Your task to perform on an android device: Open the calendar app, open the side menu, and click the "Day" option Image 0: 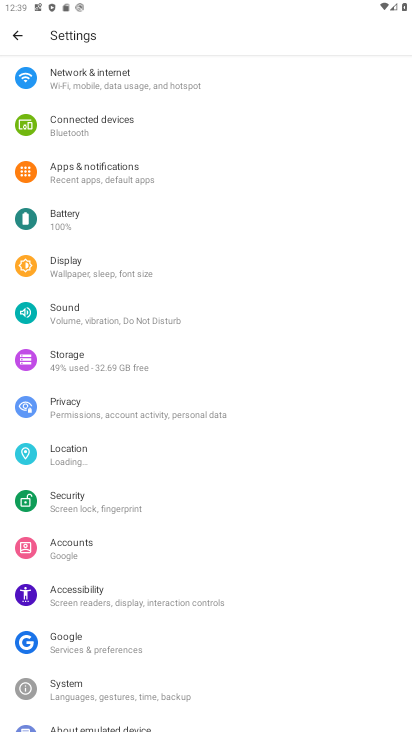
Step 0: press home button
Your task to perform on an android device: Open the calendar app, open the side menu, and click the "Day" option Image 1: 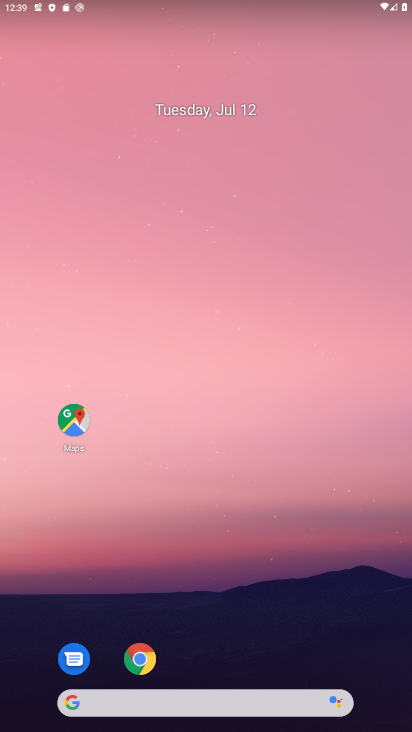
Step 1: drag from (219, 721) to (217, 195)
Your task to perform on an android device: Open the calendar app, open the side menu, and click the "Day" option Image 2: 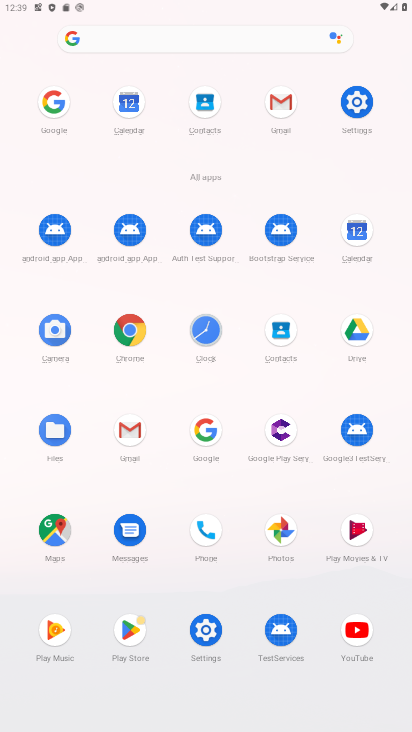
Step 2: click (359, 234)
Your task to perform on an android device: Open the calendar app, open the side menu, and click the "Day" option Image 3: 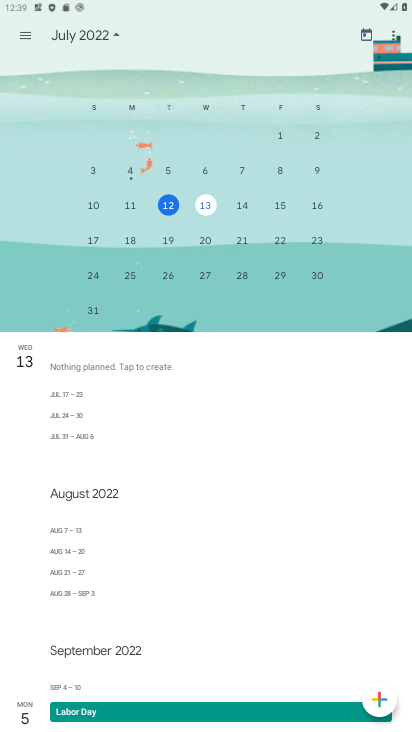
Step 3: click (22, 35)
Your task to perform on an android device: Open the calendar app, open the side menu, and click the "Day" option Image 4: 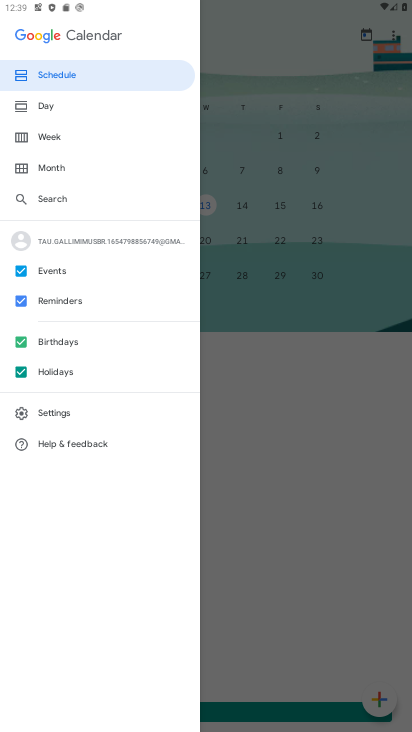
Step 4: click (46, 106)
Your task to perform on an android device: Open the calendar app, open the side menu, and click the "Day" option Image 5: 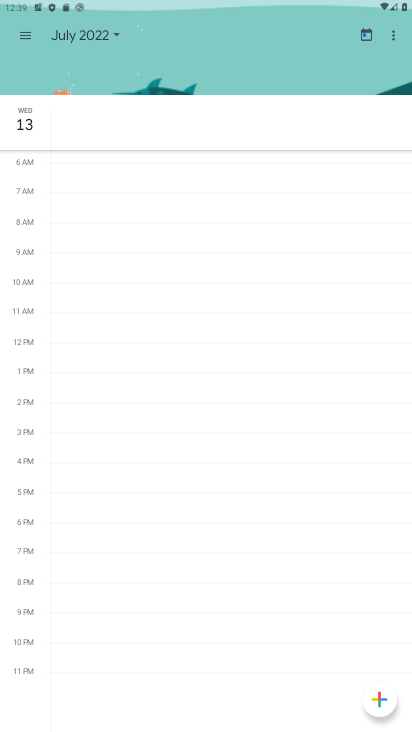
Step 5: task complete